Your task to perform on an android device: turn pop-ups off in chrome Image 0: 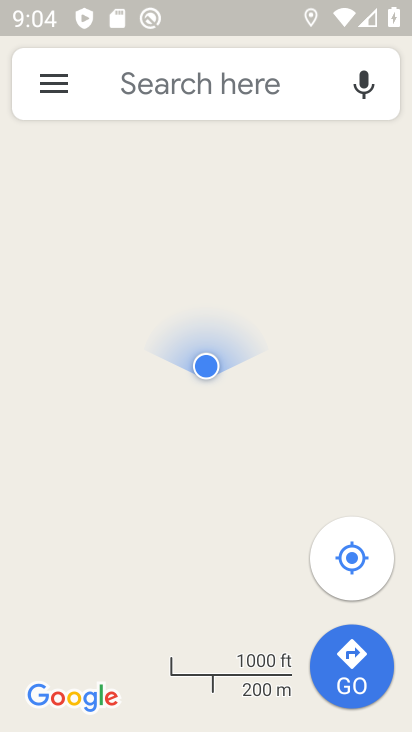
Step 0: press home button
Your task to perform on an android device: turn pop-ups off in chrome Image 1: 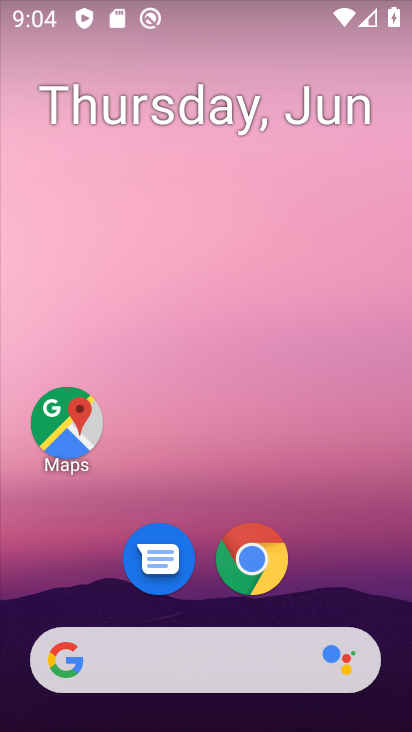
Step 1: click (244, 568)
Your task to perform on an android device: turn pop-ups off in chrome Image 2: 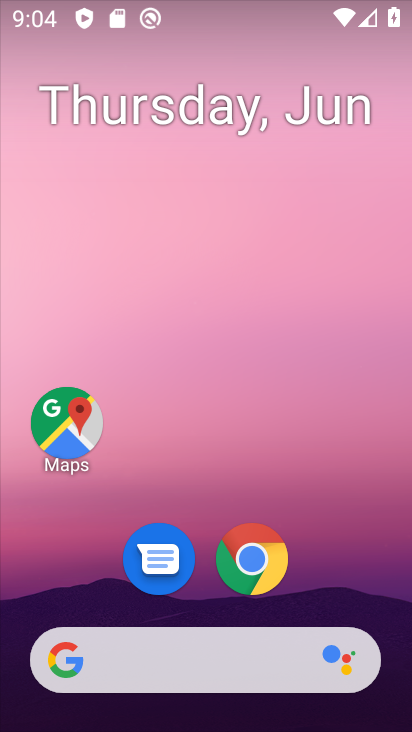
Step 2: click (247, 542)
Your task to perform on an android device: turn pop-ups off in chrome Image 3: 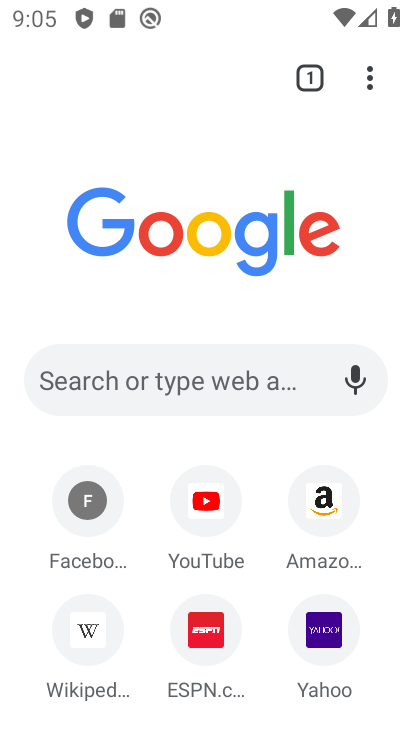
Step 3: click (377, 67)
Your task to perform on an android device: turn pop-ups off in chrome Image 4: 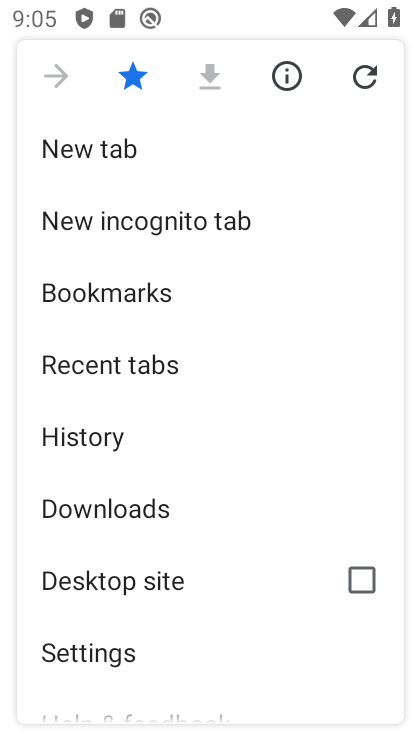
Step 4: click (115, 644)
Your task to perform on an android device: turn pop-ups off in chrome Image 5: 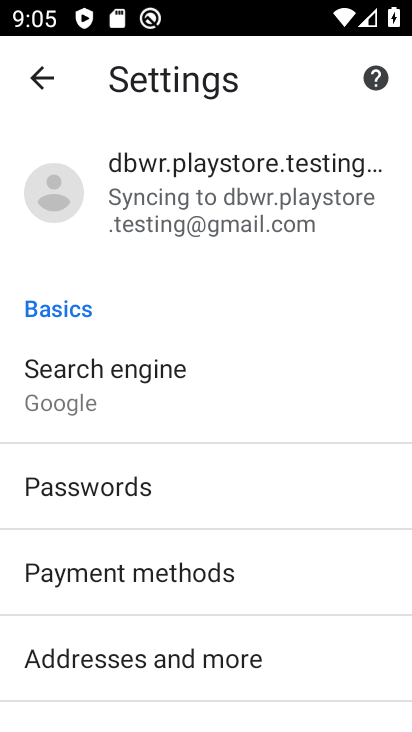
Step 5: drag from (107, 591) to (111, 284)
Your task to perform on an android device: turn pop-ups off in chrome Image 6: 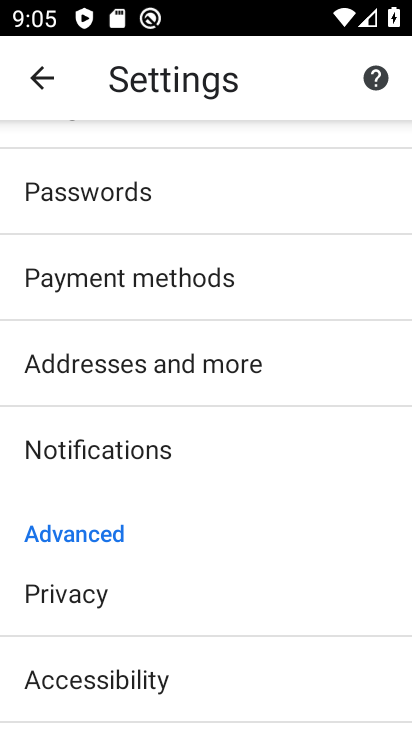
Step 6: drag from (79, 603) to (92, 342)
Your task to perform on an android device: turn pop-ups off in chrome Image 7: 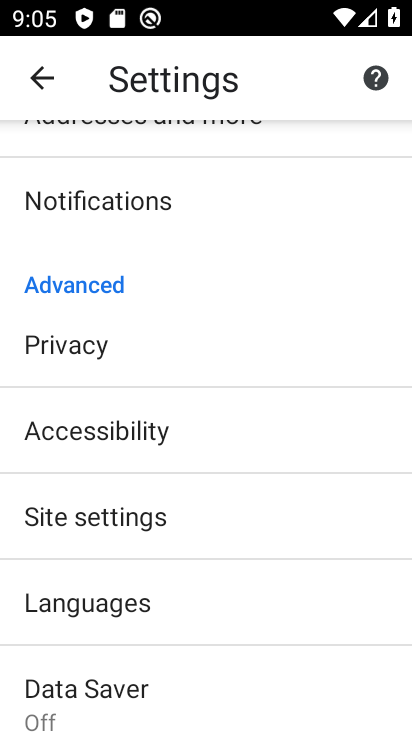
Step 7: click (75, 521)
Your task to perform on an android device: turn pop-ups off in chrome Image 8: 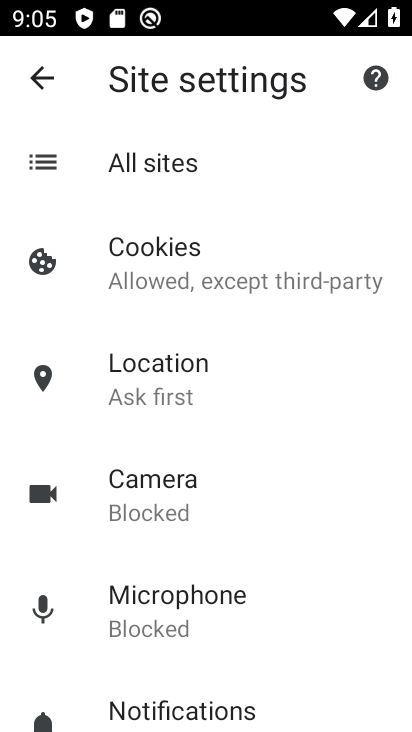
Step 8: drag from (210, 588) to (223, 249)
Your task to perform on an android device: turn pop-ups off in chrome Image 9: 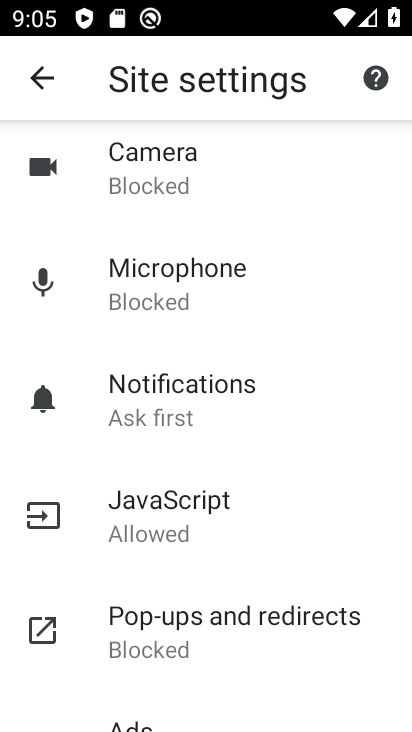
Step 9: click (172, 618)
Your task to perform on an android device: turn pop-ups off in chrome Image 10: 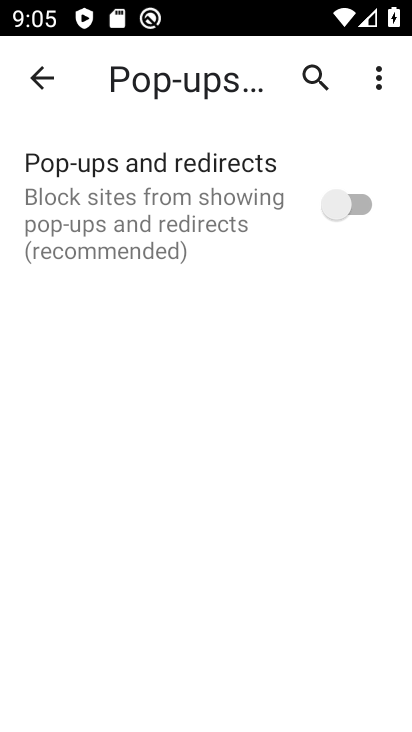
Step 10: task complete